Your task to perform on an android device: change the clock display to digital Image 0: 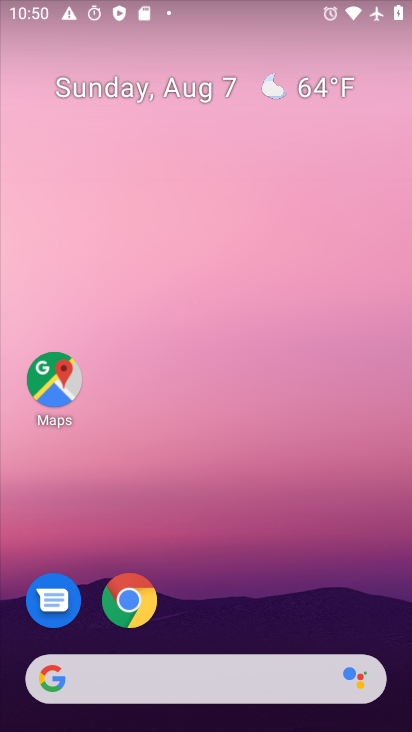
Step 0: drag from (242, 640) to (348, 147)
Your task to perform on an android device: change the clock display to digital Image 1: 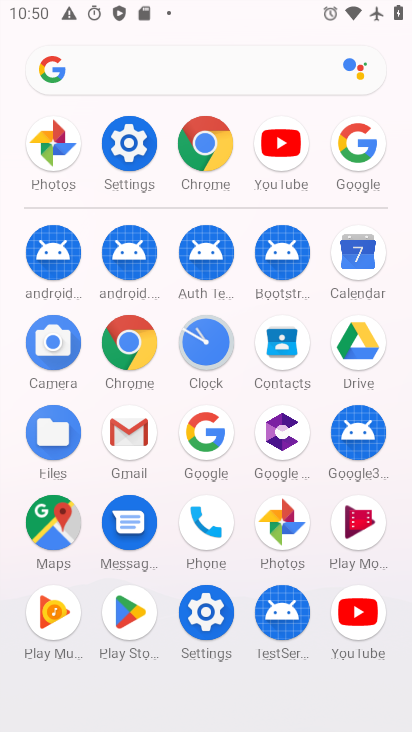
Step 1: click (209, 351)
Your task to perform on an android device: change the clock display to digital Image 2: 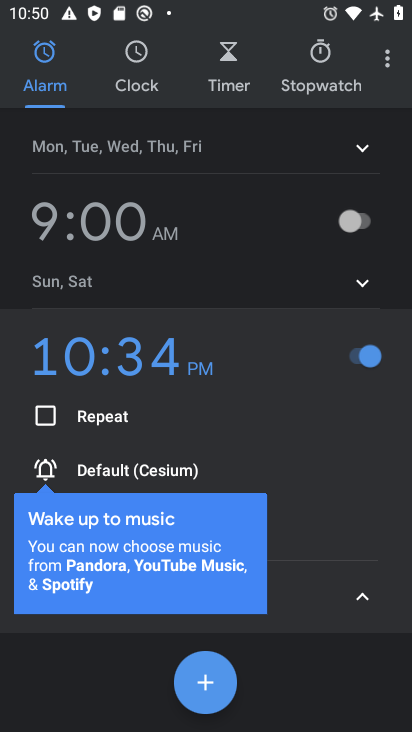
Step 2: click (387, 62)
Your task to perform on an android device: change the clock display to digital Image 3: 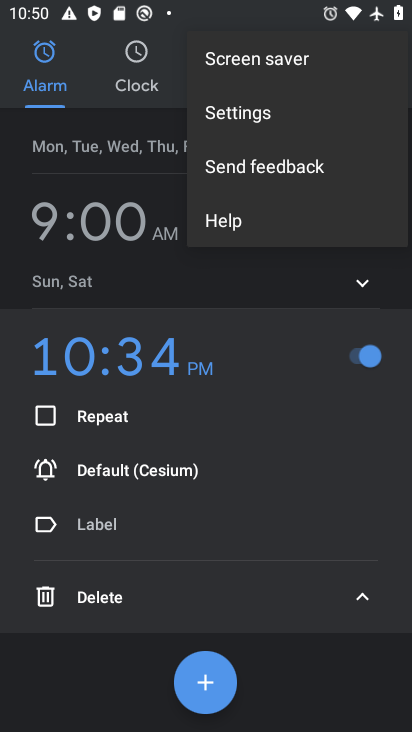
Step 3: click (241, 111)
Your task to perform on an android device: change the clock display to digital Image 4: 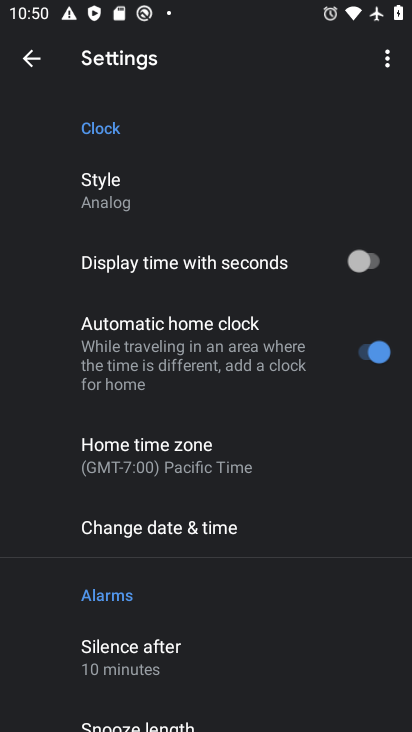
Step 4: click (127, 200)
Your task to perform on an android device: change the clock display to digital Image 5: 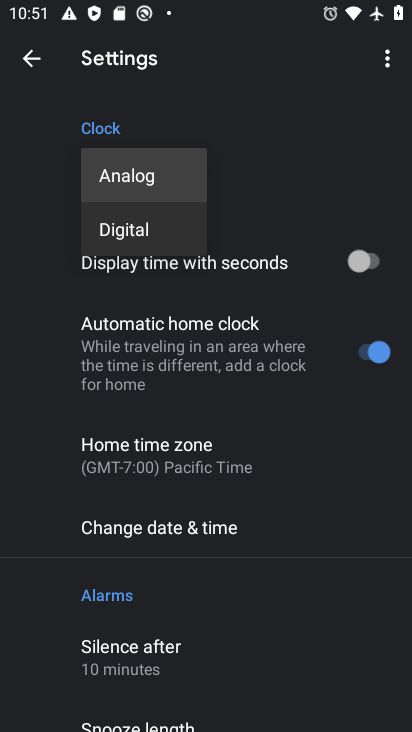
Step 5: click (135, 226)
Your task to perform on an android device: change the clock display to digital Image 6: 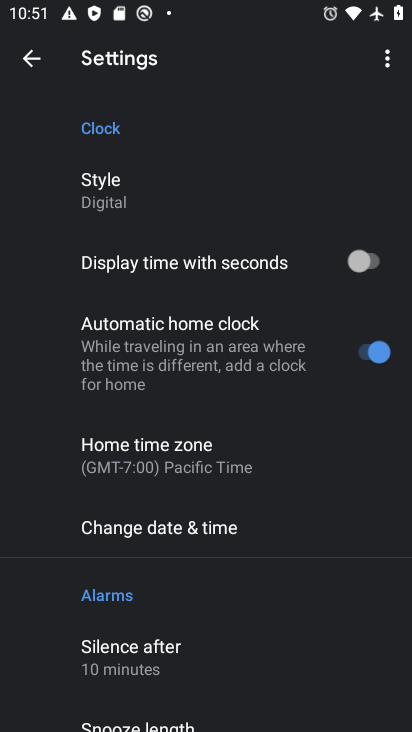
Step 6: task complete